Your task to perform on an android device: Turn off the flashlight Image 0: 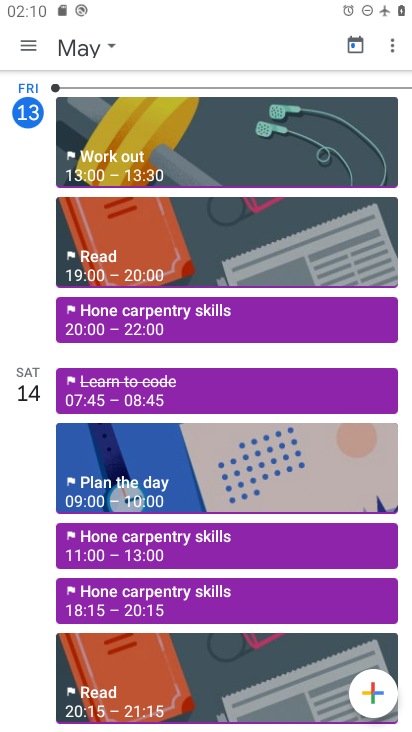
Step 0: press home button
Your task to perform on an android device: Turn off the flashlight Image 1: 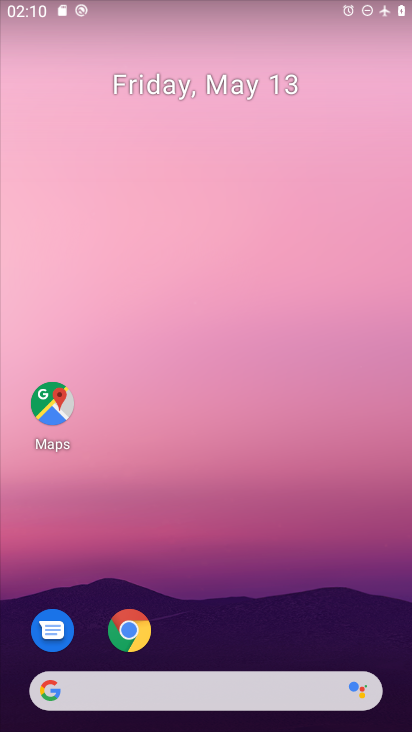
Step 1: drag from (206, 702) to (288, 145)
Your task to perform on an android device: Turn off the flashlight Image 2: 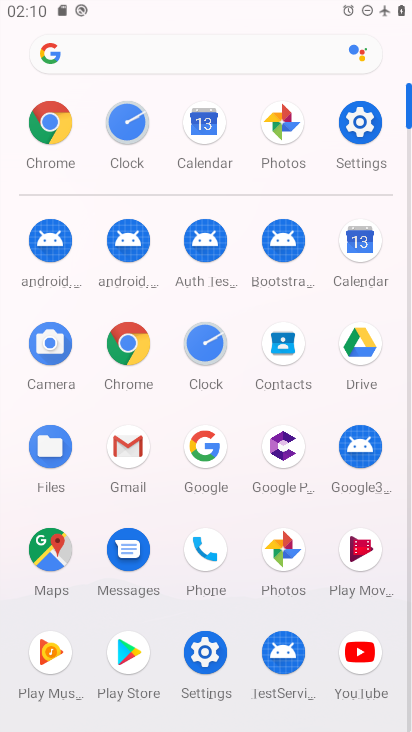
Step 2: click (371, 117)
Your task to perform on an android device: Turn off the flashlight Image 3: 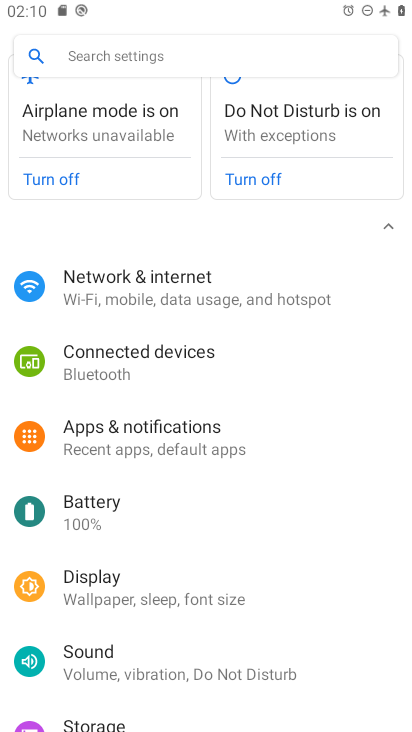
Step 3: click (139, 50)
Your task to perform on an android device: Turn off the flashlight Image 4: 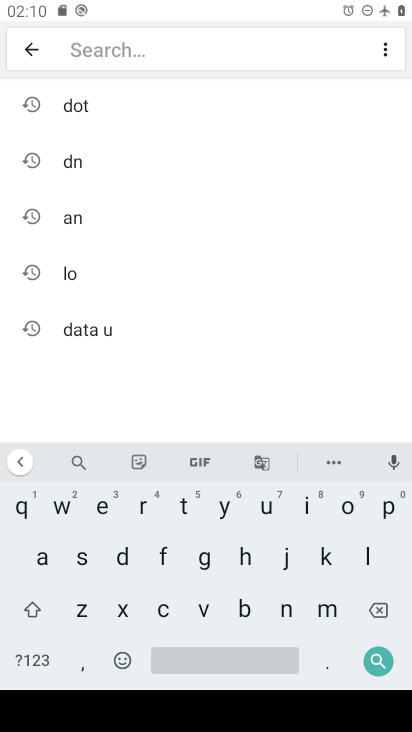
Step 4: click (164, 559)
Your task to perform on an android device: Turn off the flashlight Image 5: 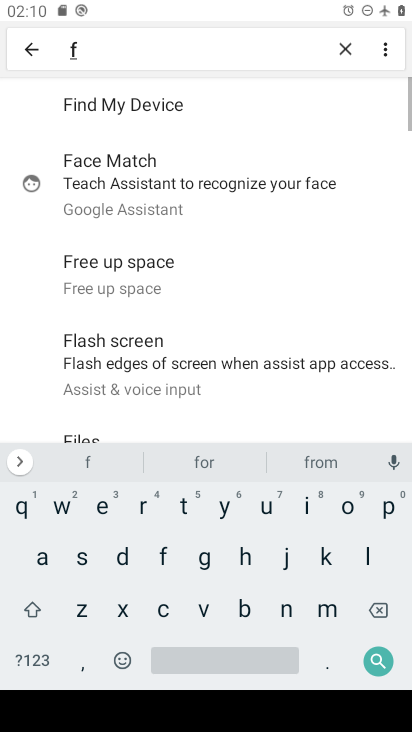
Step 5: click (369, 550)
Your task to perform on an android device: Turn off the flashlight Image 6: 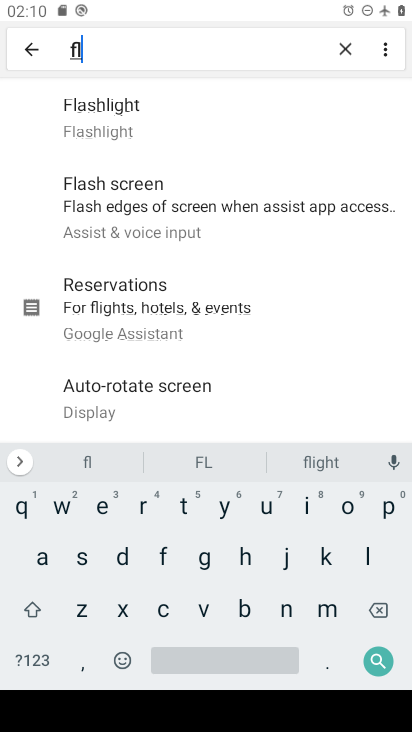
Step 6: task complete